Your task to perform on an android device: Go to Yahoo.com Image 0: 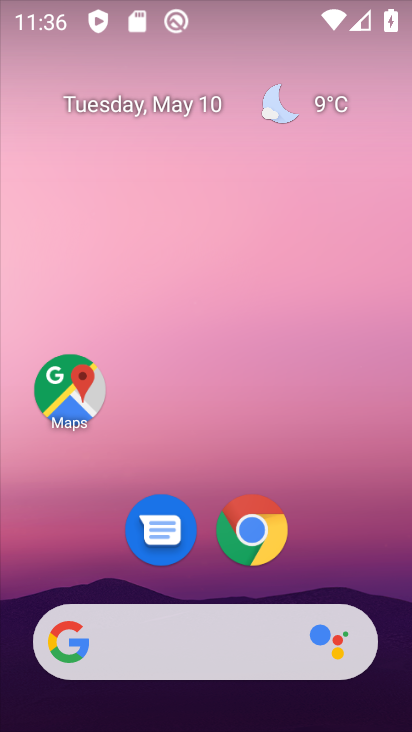
Step 0: press home button
Your task to perform on an android device: Go to Yahoo.com Image 1: 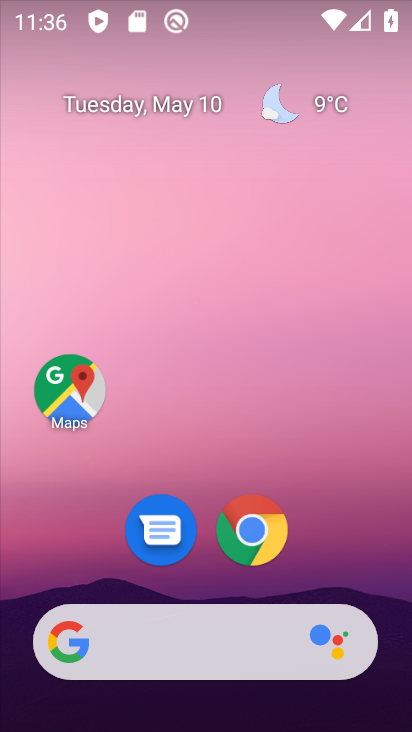
Step 1: click (230, 533)
Your task to perform on an android device: Go to Yahoo.com Image 2: 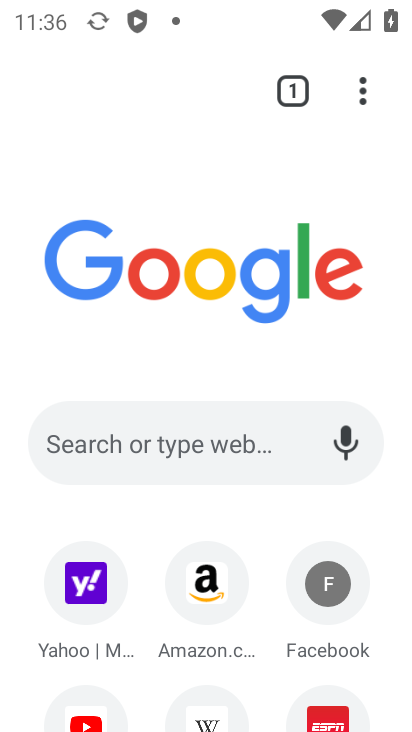
Step 2: click (93, 579)
Your task to perform on an android device: Go to Yahoo.com Image 3: 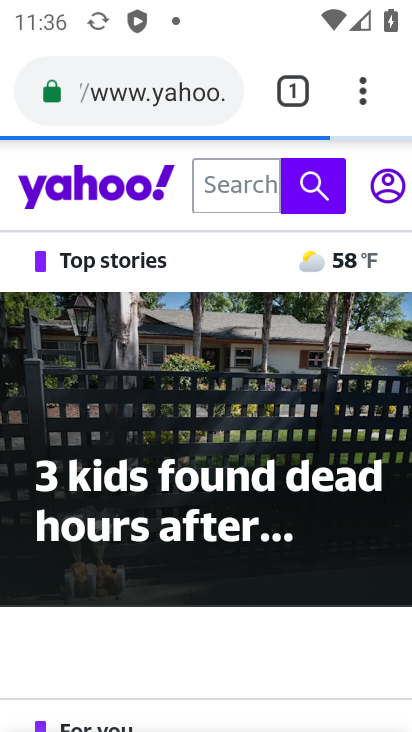
Step 3: task complete